Your task to perform on an android device: Search for 24"x36" picture frame on Home Depot. Image 0: 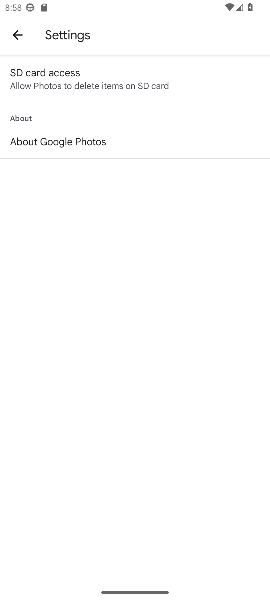
Step 0: press home button
Your task to perform on an android device: Search for 24"x36" picture frame on Home Depot. Image 1: 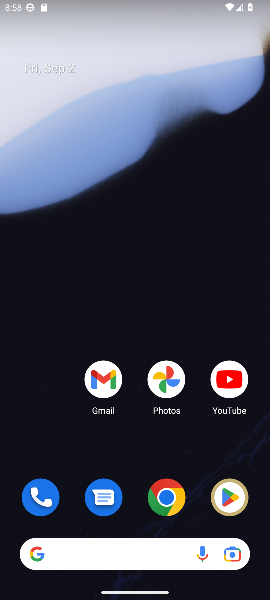
Step 1: click (173, 493)
Your task to perform on an android device: Search for 24"x36" picture frame on Home Depot. Image 2: 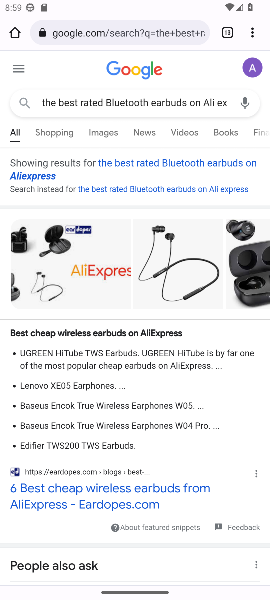
Step 2: click (167, 28)
Your task to perform on an android device: Search for 24"x36" picture frame on Home Depot. Image 3: 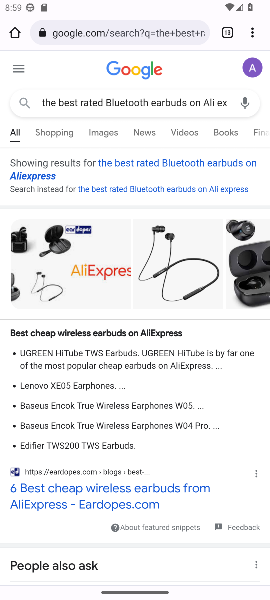
Step 3: click (167, 28)
Your task to perform on an android device: Search for 24"x36" picture frame on Home Depot. Image 4: 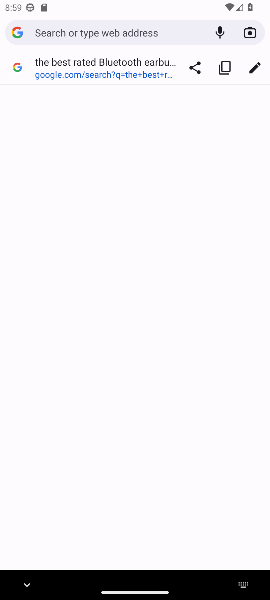
Step 4: type " picture frame on Home Depot."
Your task to perform on an android device: Search for 24"x36" picture frame on Home Depot. Image 5: 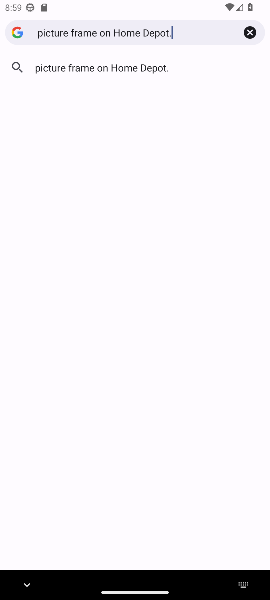
Step 5: click (33, 39)
Your task to perform on an android device: Search for 24"x36" picture frame on Home Depot. Image 6: 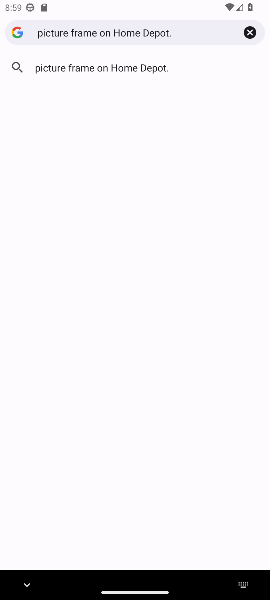
Step 6: click (50, 31)
Your task to perform on an android device: Search for 24"x36" picture frame on Home Depot. Image 7: 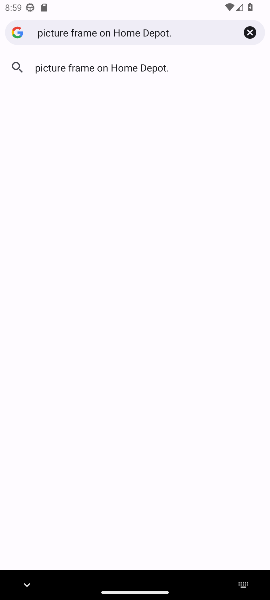
Step 7: click (38, 36)
Your task to perform on an android device: Search for 24"x36" picture frame on Home Depot. Image 8: 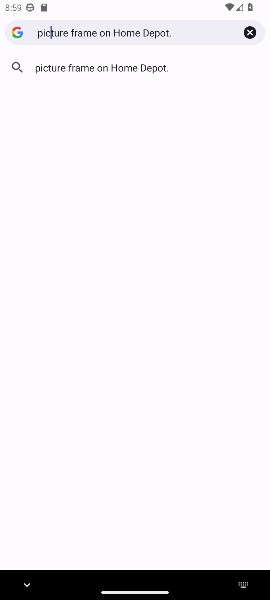
Step 8: click (38, 36)
Your task to perform on an android device: Search for 24"x36" picture frame on Home Depot. Image 9: 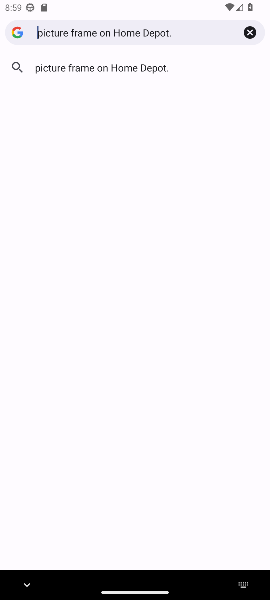
Step 9: click (38, 36)
Your task to perform on an android device: Search for 24"x36" picture frame on Home Depot. Image 10: 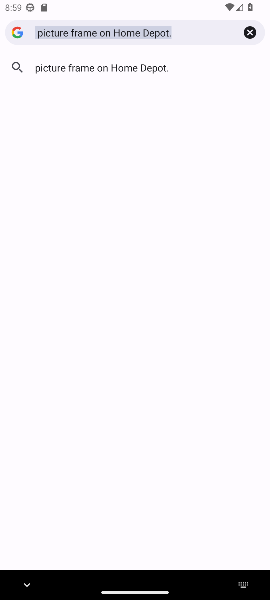
Step 10: click (38, 36)
Your task to perform on an android device: Search for 24"x36" picture frame on Home Depot. Image 11: 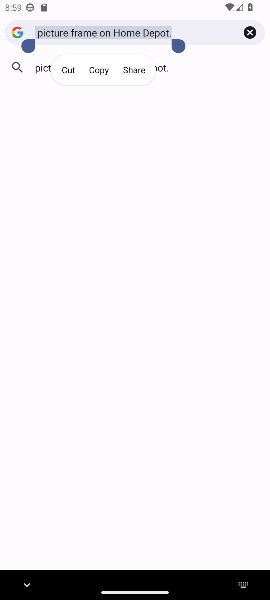
Step 11: click (38, 36)
Your task to perform on an android device: Search for 24"x36" picture frame on Home Depot. Image 12: 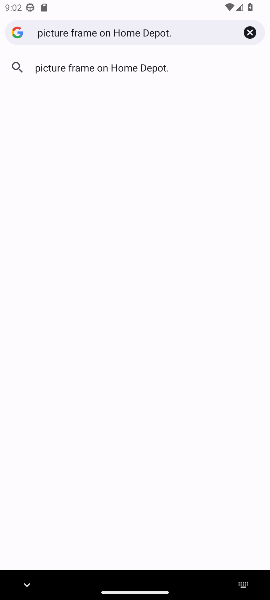
Step 12: type " "
Your task to perform on an android device: Search for 24"x36" picture frame on Home Depot. Image 13: 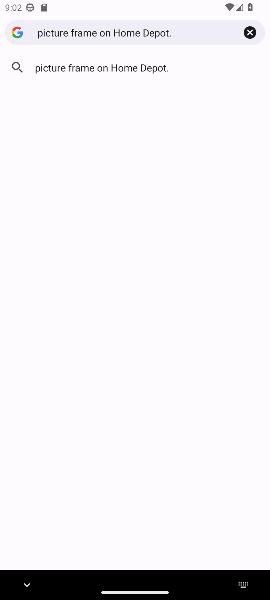
Step 13: click (122, 71)
Your task to perform on an android device: Search for 24"x36" picture frame on Home Depot. Image 14: 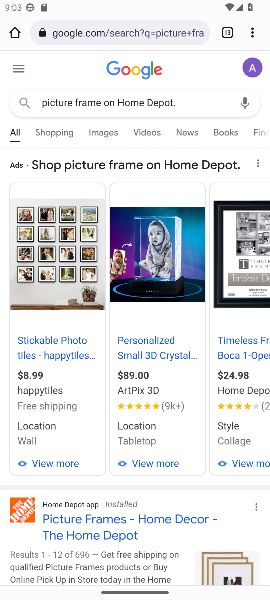
Step 14: task complete